Your task to perform on an android device: delete a single message in the gmail app Image 0: 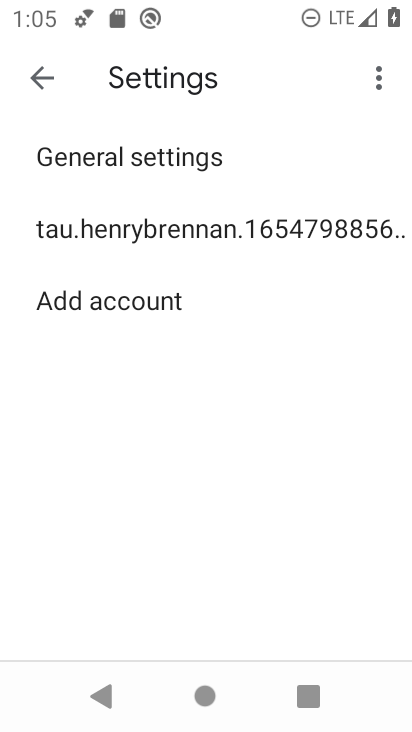
Step 0: press home button
Your task to perform on an android device: delete a single message in the gmail app Image 1: 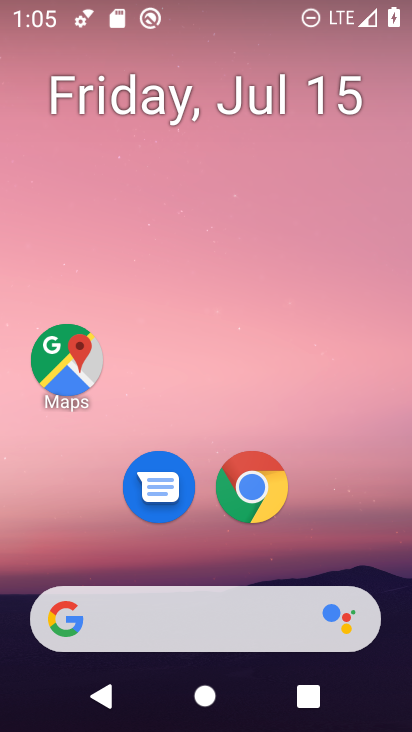
Step 1: drag from (215, 607) to (240, 155)
Your task to perform on an android device: delete a single message in the gmail app Image 2: 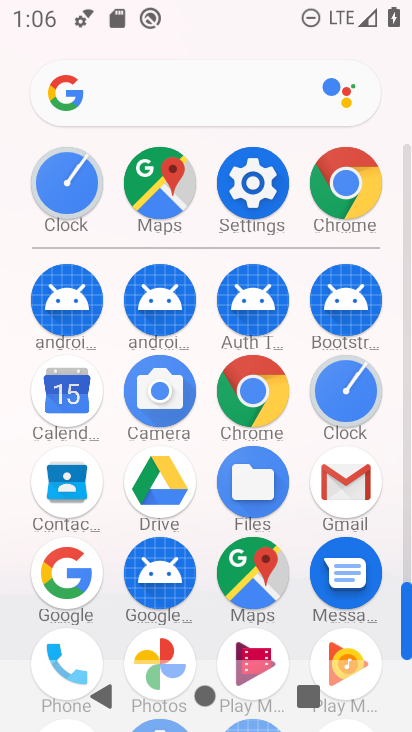
Step 2: click (346, 479)
Your task to perform on an android device: delete a single message in the gmail app Image 3: 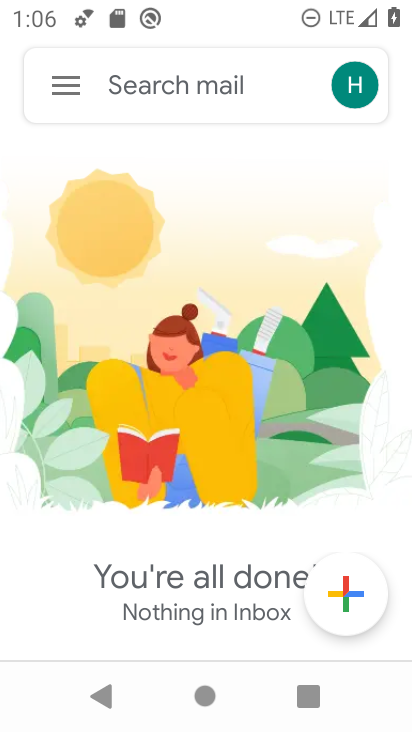
Step 3: click (62, 99)
Your task to perform on an android device: delete a single message in the gmail app Image 4: 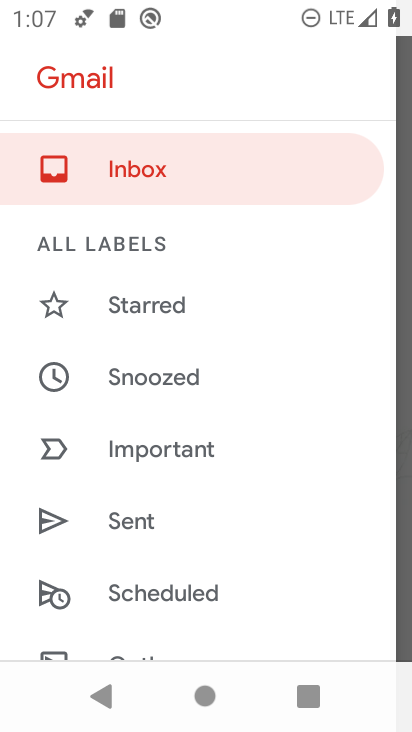
Step 4: drag from (161, 502) to (203, 212)
Your task to perform on an android device: delete a single message in the gmail app Image 5: 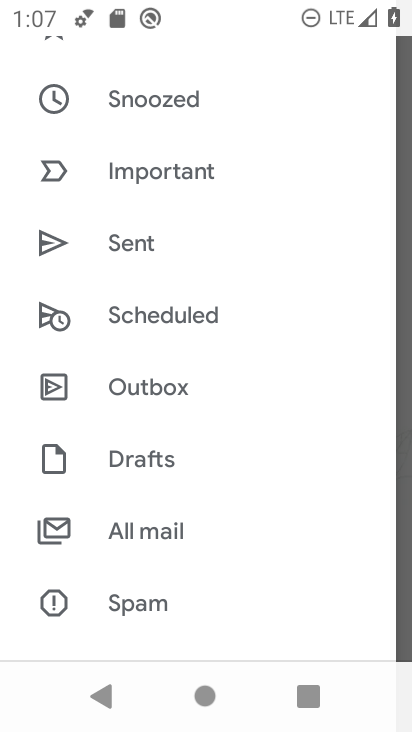
Step 5: click (211, 525)
Your task to perform on an android device: delete a single message in the gmail app Image 6: 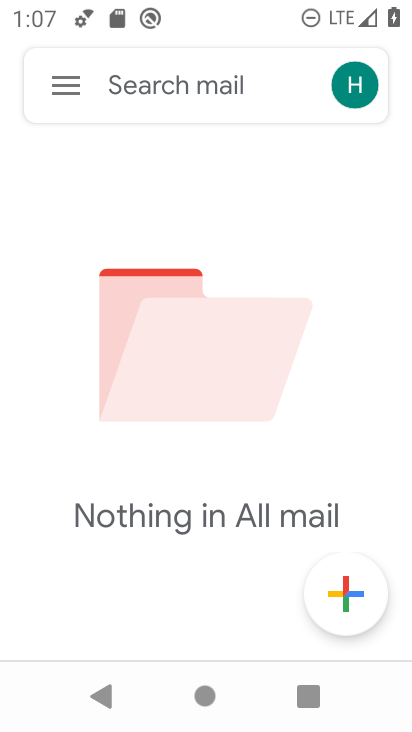
Step 6: task complete